Your task to perform on an android device: Go to location settings Image 0: 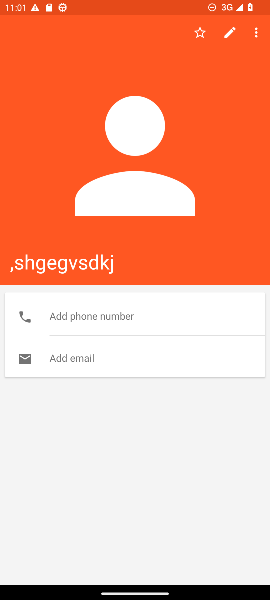
Step 0: press home button
Your task to perform on an android device: Go to location settings Image 1: 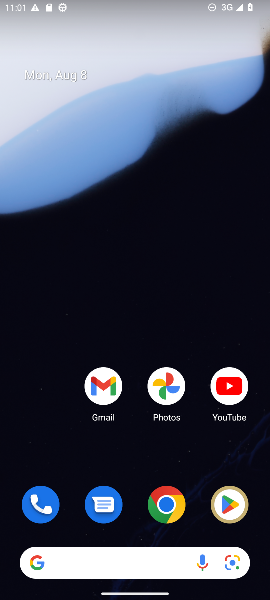
Step 1: drag from (128, 443) to (155, 6)
Your task to perform on an android device: Go to location settings Image 2: 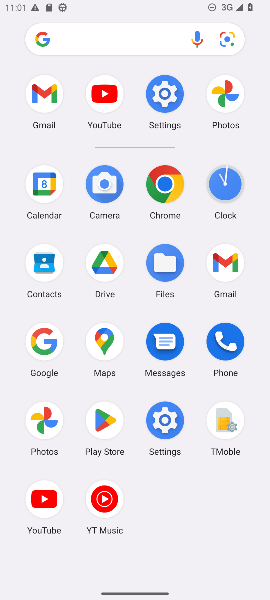
Step 2: click (158, 433)
Your task to perform on an android device: Go to location settings Image 3: 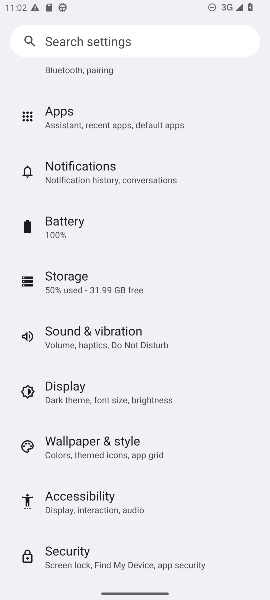
Step 3: drag from (90, 476) to (117, 116)
Your task to perform on an android device: Go to location settings Image 4: 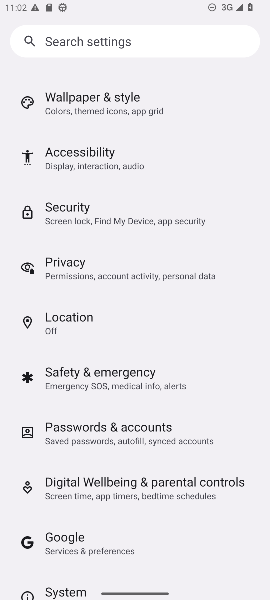
Step 4: click (92, 323)
Your task to perform on an android device: Go to location settings Image 5: 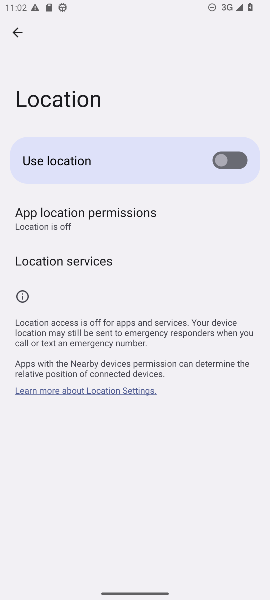
Step 5: task complete